Your task to perform on an android device: open sync settings in chrome Image 0: 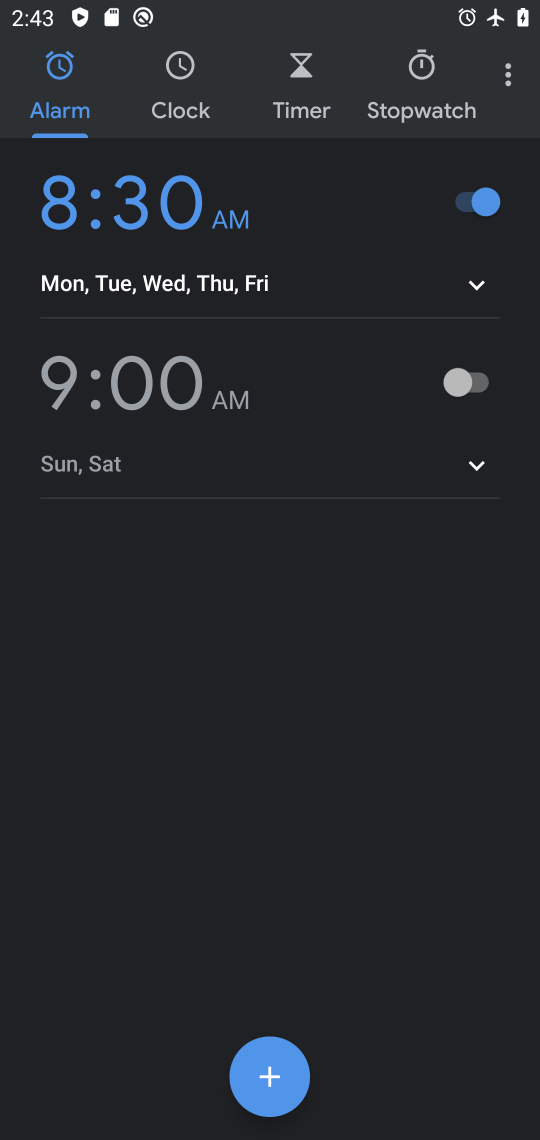
Step 0: press home button
Your task to perform on an android device: open sync settings in chrome Image 1: 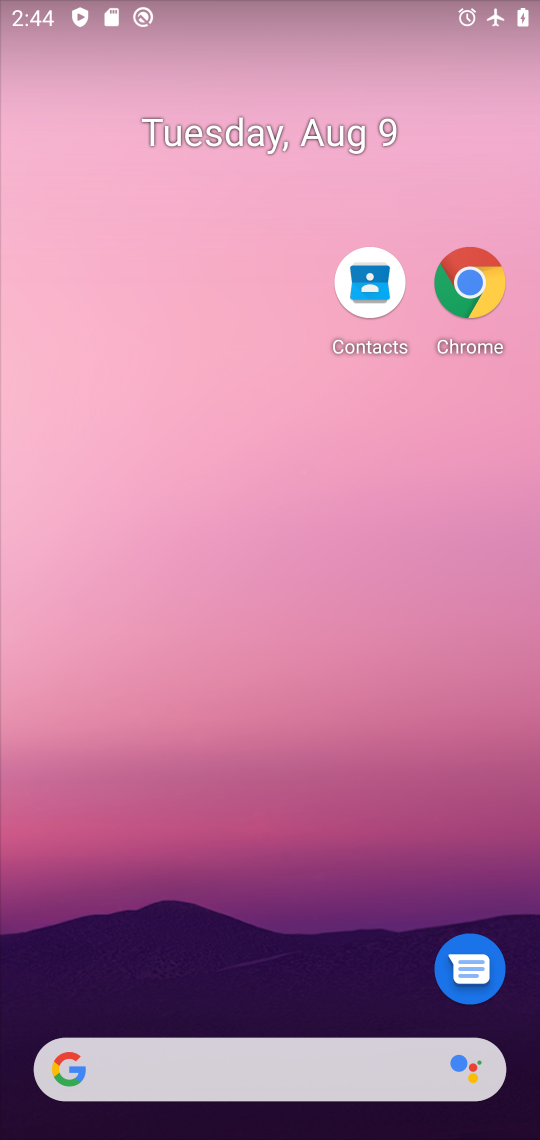
Step 1: drag from (277, 1004) to (33, 520)
Your task to perform on an android device: open sync settings in chrome Image 2: 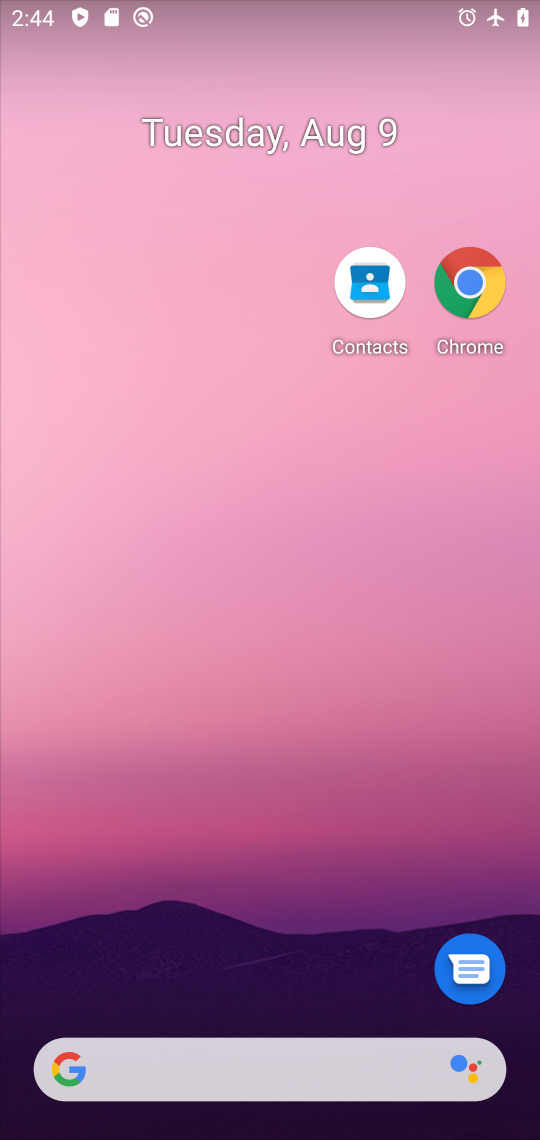
Step 2: click (466, 280)
Your task to perform on an android device: open sync settings in chrome Image 3: 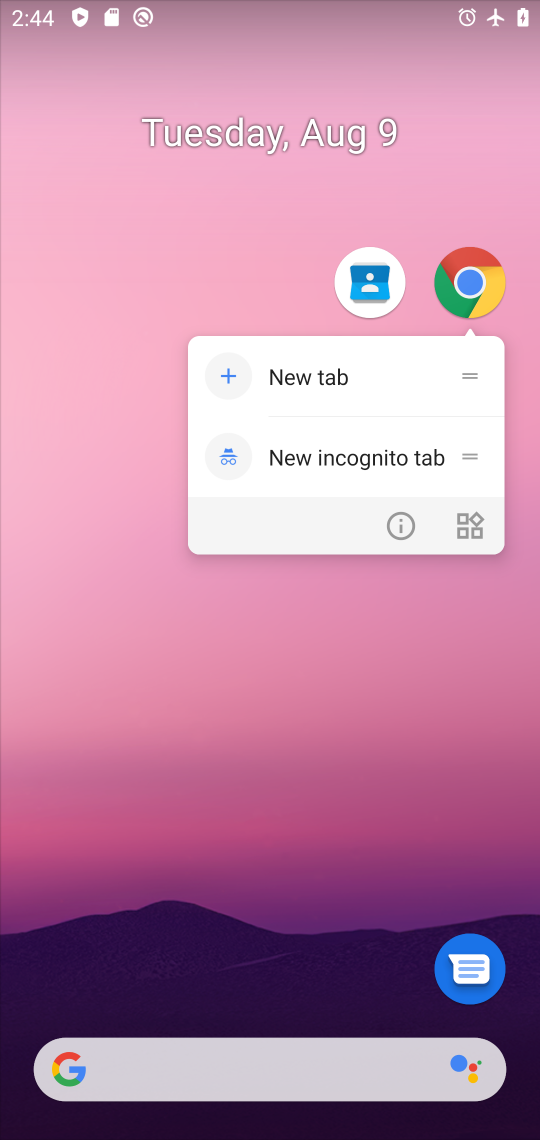
Step 3: click (395, 531)
Your task to perform on an android device: open sync settings in chrome Image 4: 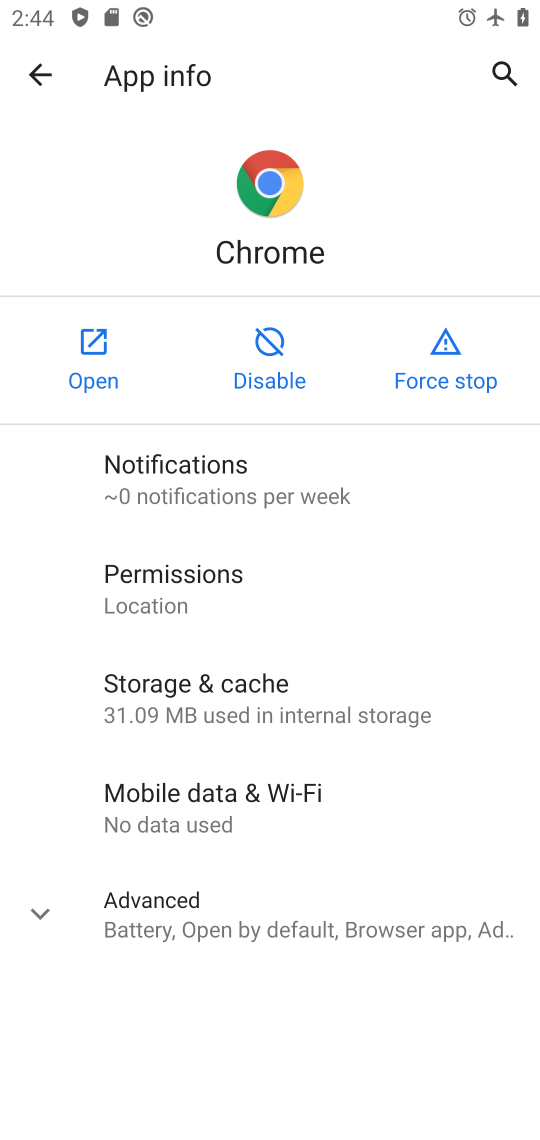
Step 4: click (91, 343)
Your task to perform on an android device: open sync settings in chrome Image 5: 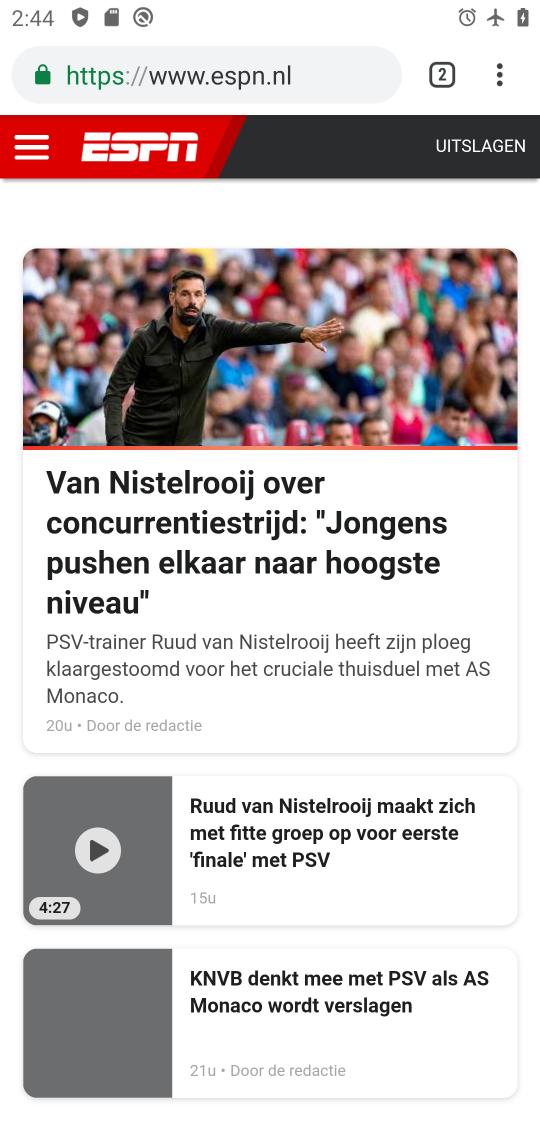
Step 5: drag from (362, 763) to (374, 380)
Your task to perform on an android device: open sync settings in chrome Image 6: 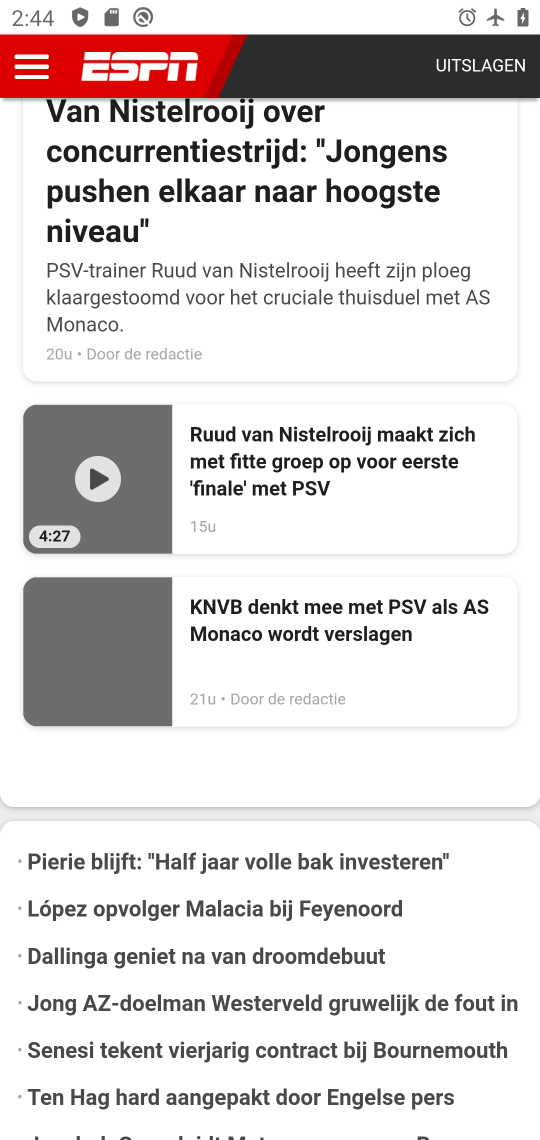
Step 6: drag from (176, 889) to (209, 507)
Your task to perform on an android device: open sync settings in chrome Image 7: 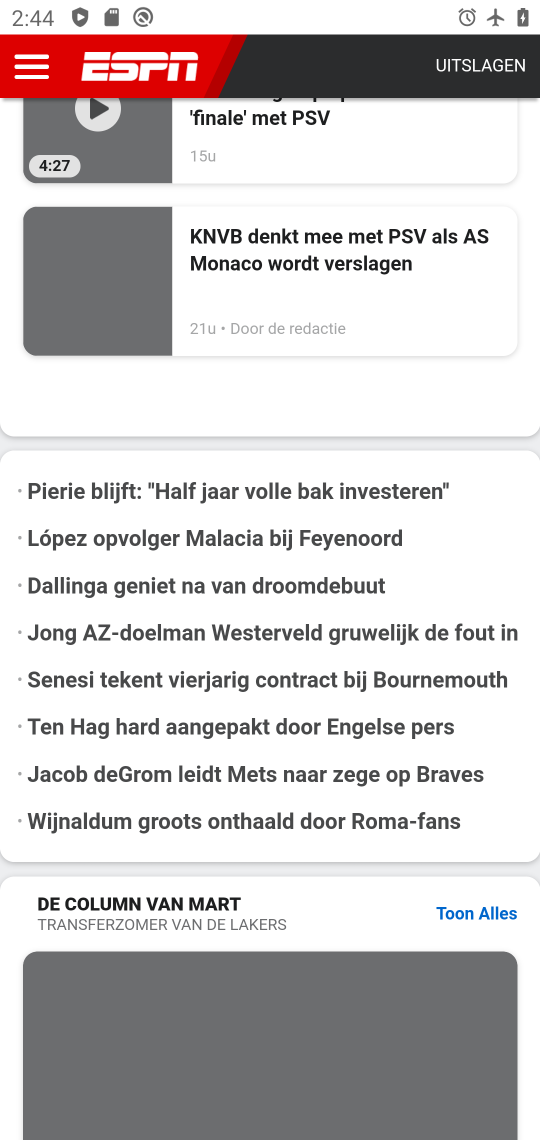
Step 7: drag from (353, 330) to (384, 914)
Your task to perform on an android device: open sync settings in chrome Image 8: 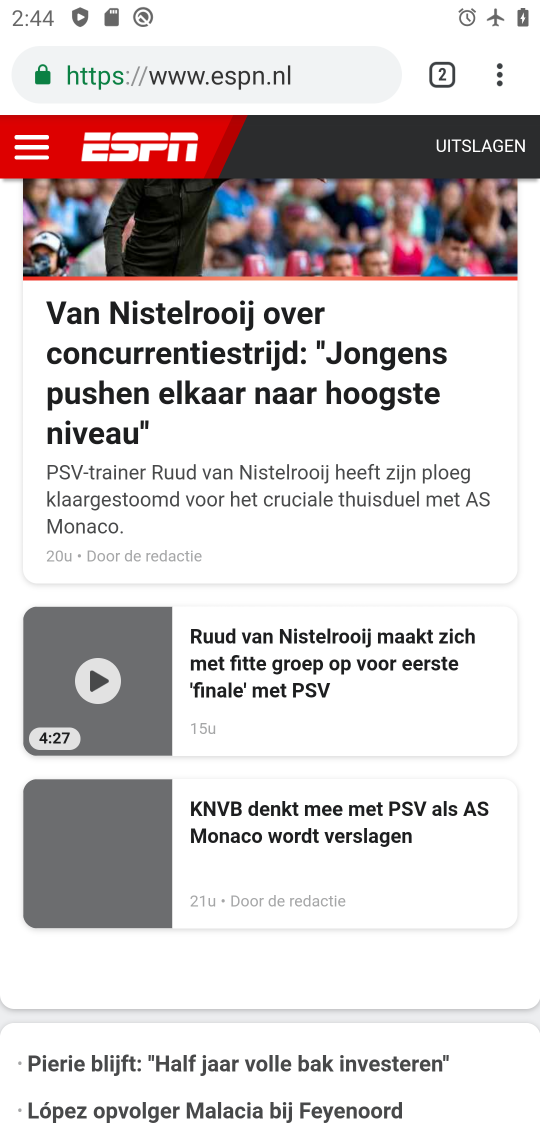
Step 8: drag from (403, 182) to (353, 637)
Your task to perform on an android device: open sync settings in chrome Image 9: 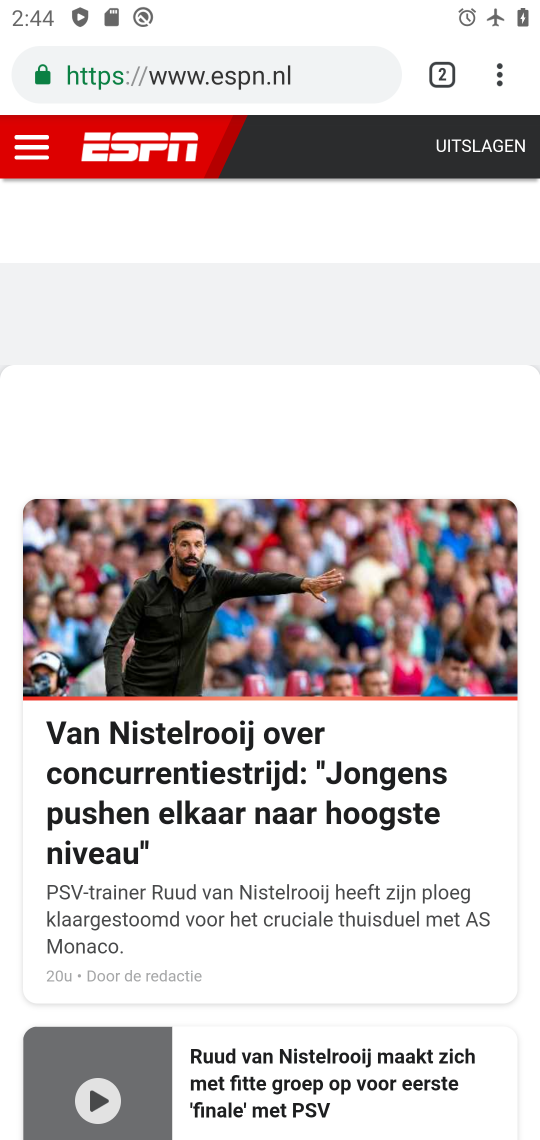
Step 9: drag from (496, 77) to (279, 826)
Your task to perform on an android device: open sync settings in chrome Image 10: 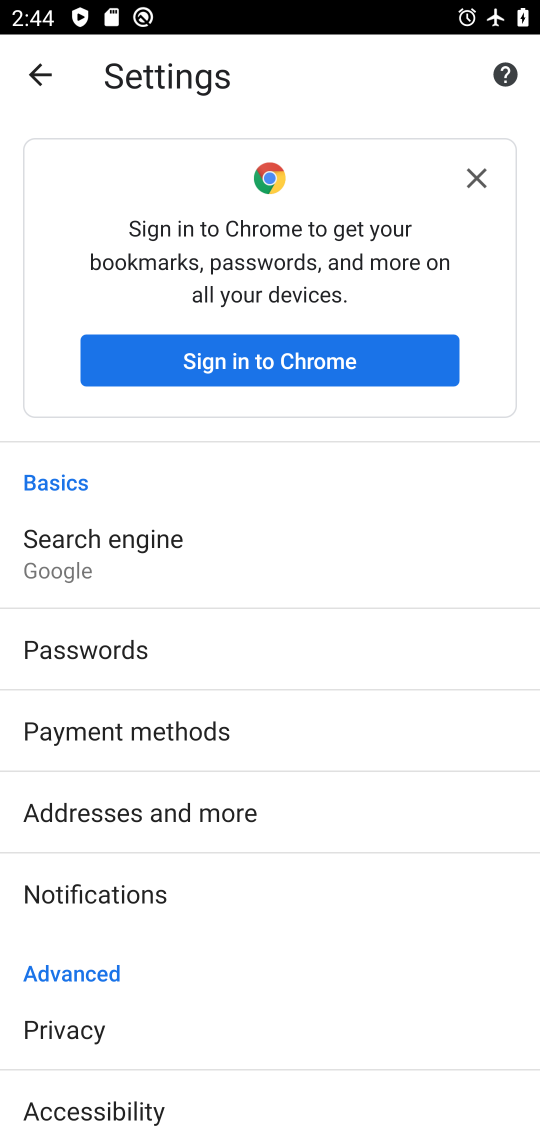
Step 10: drag from (229, 881) to (258, 351)
Your task to perform on an android device: open sync settings in chrome Image 11: 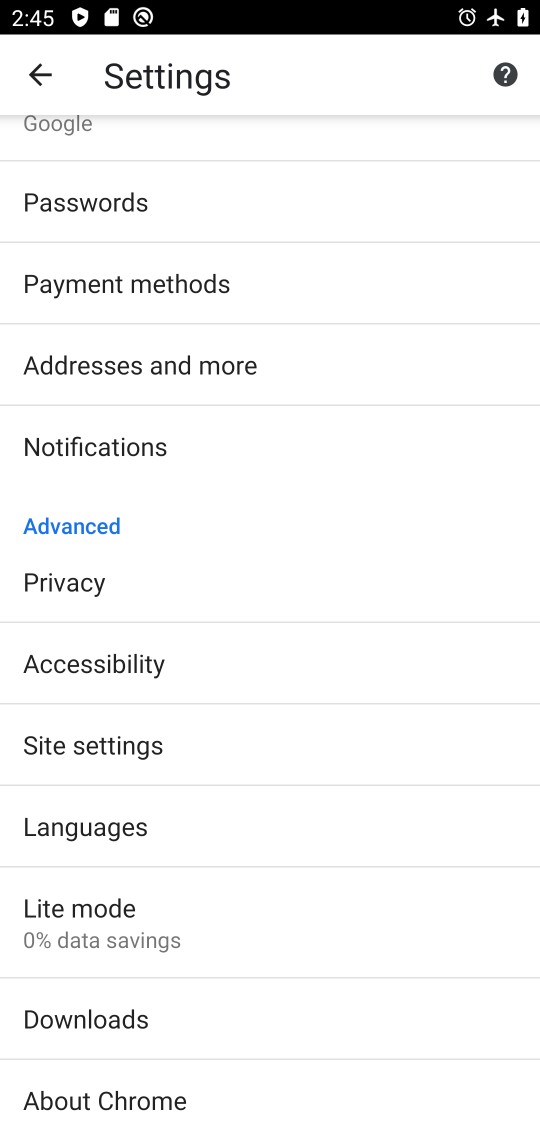
Step 11: click (164, 744)
Your task to perform on an android device: open sync settings in chrome Image 12: 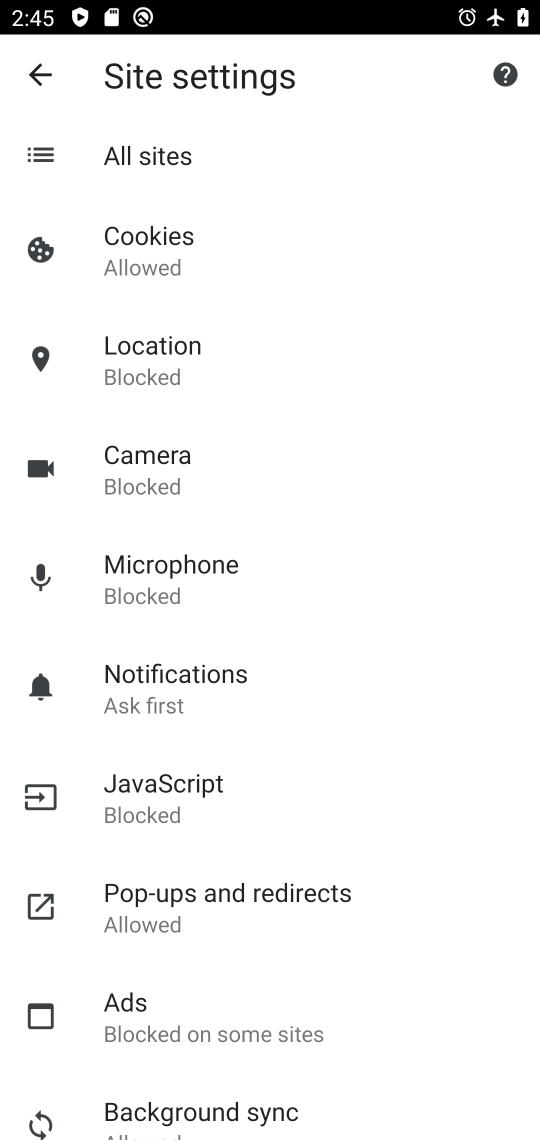
Step 12: click (185, 1105)
Your task to perform on an android device: open sync settings in chrome Image 13: 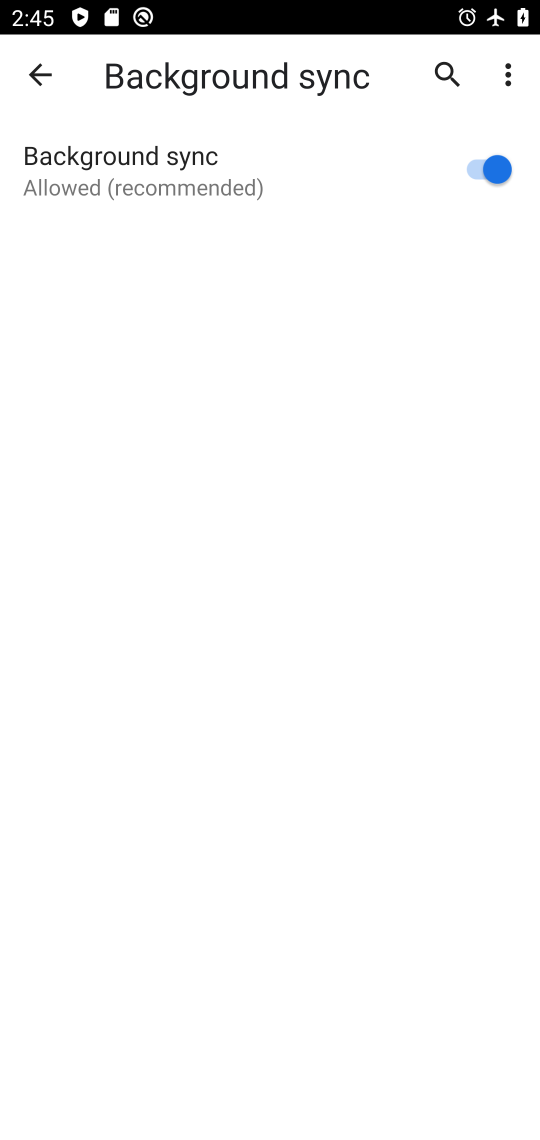
Step 13: task complete